Your task to perform on an android device: toggle location history Image 0: 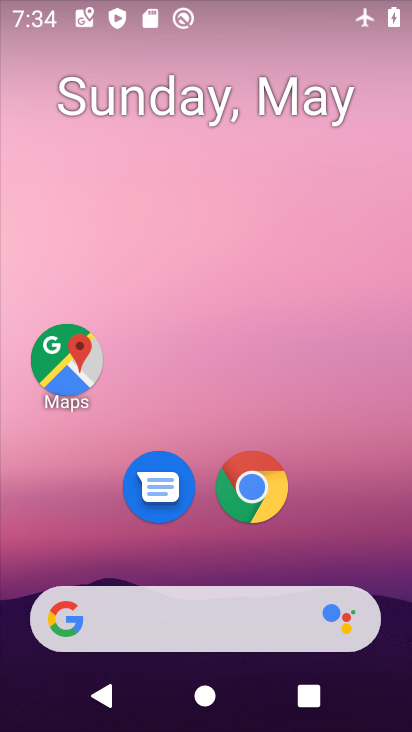
Step 0: drag from (339, 555) to (357, 165)
Your task to perform on an android device: toggle location history Image 1: 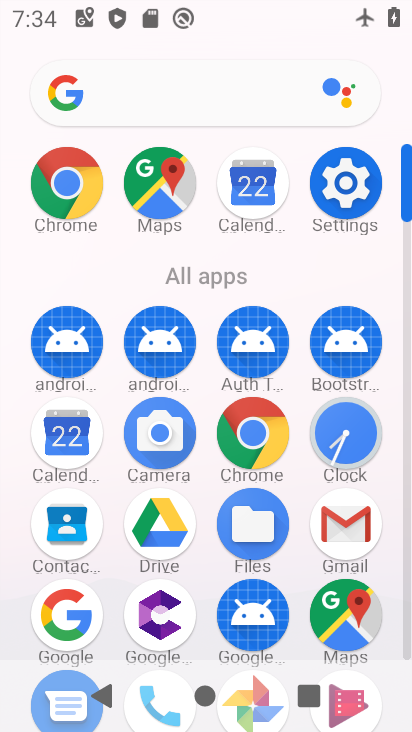
Step 1: click (341, 193)
Your task to perform on an android device: toggle location history Image 2: 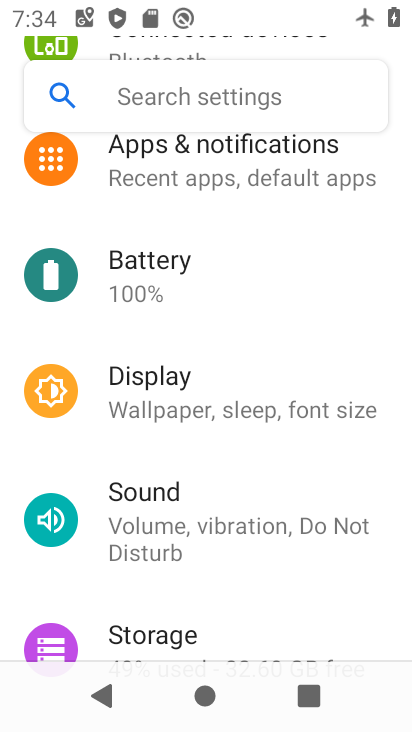
Step 2: drag from (359, 592) to (363, 483)
Your task to perform on an android device: toggle location history Image 3: 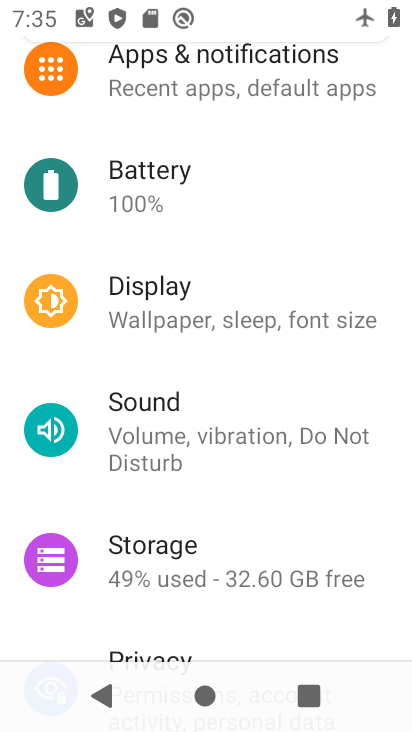
Step 3: drag from (363, 618) to (357, 509)
Your task to perform on an android device: toggle location history Image 4: 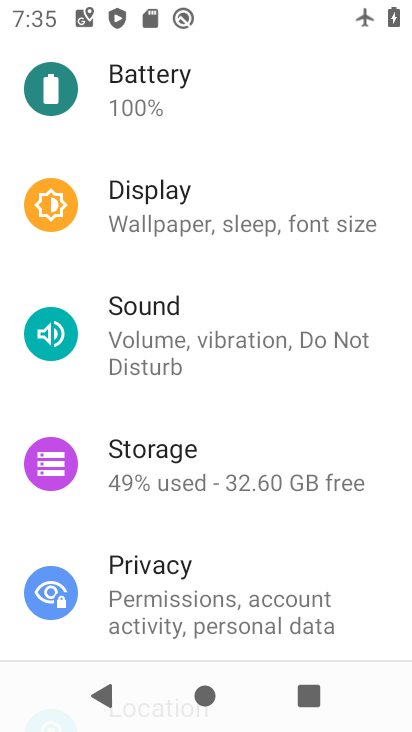
Step 4: drag from (363, 619) to (371, 526)
Your task to perform on an android device: toggle location history Image 5: 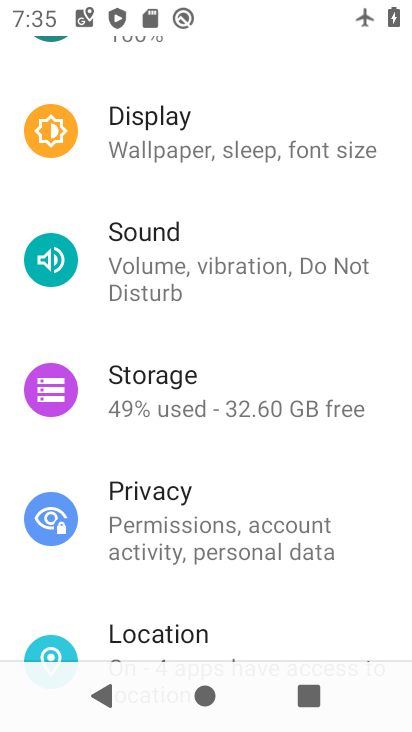
Step 5: drag from (367, 613) to (366, 537)
Your task to perform on an android device: toggle location history Image 6: 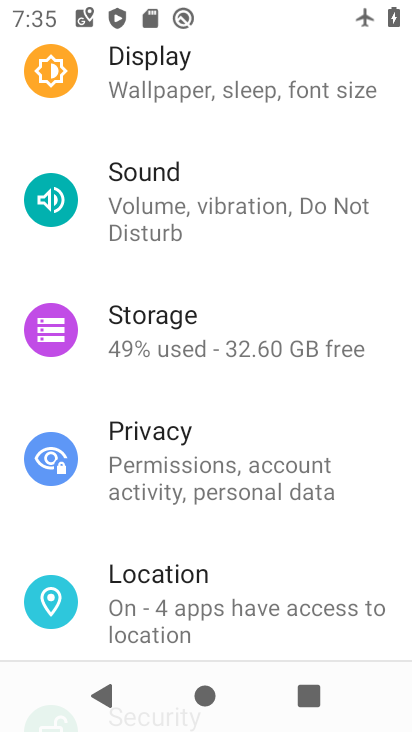
Step 6: drag from (359, 620) to (357, 546)
Your task to perform on an android device: toggle location history Image 7: 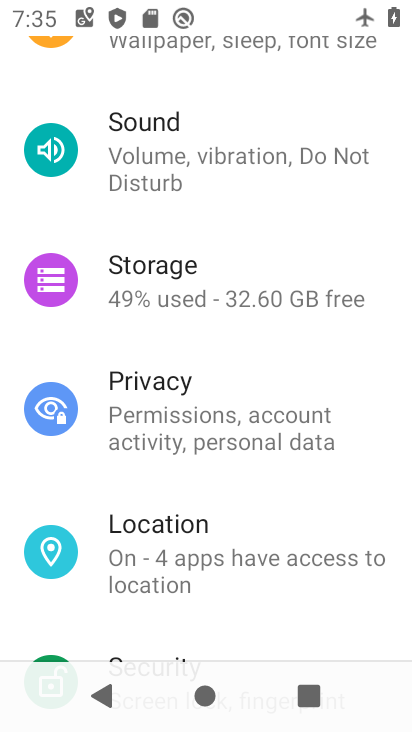
Step 7: drag from (354, 618) to (355, 527)
Your task to perform on an android device: toggle location history Image 8: 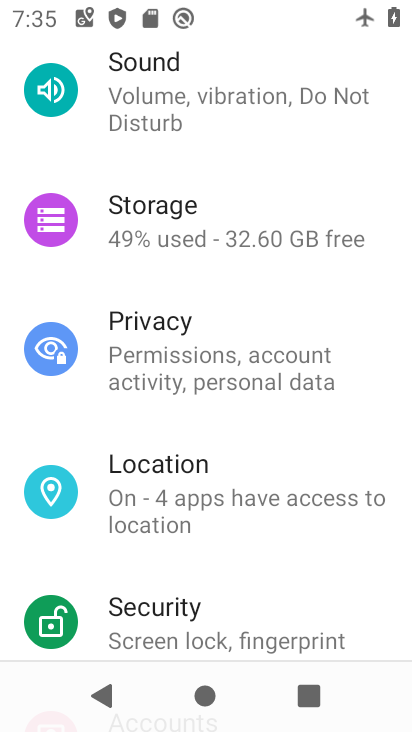
Step 8: drag from (356, 600) to (358, 497)
Your task to perform on an android device: toggle location history Image 9: 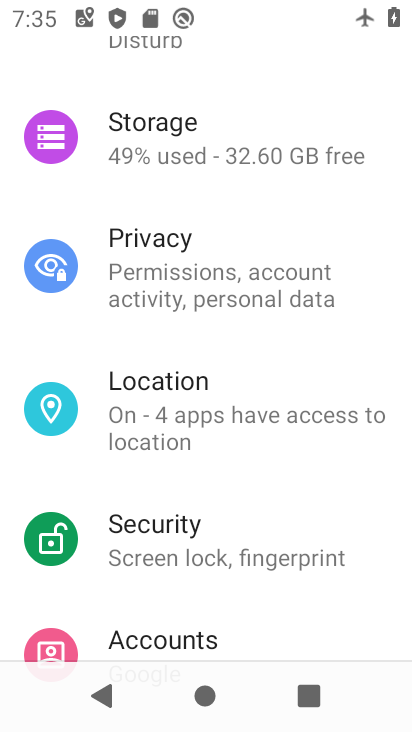
Step 9: drag from (367, 601) to (363, 510)
Your task to perform on an android device: toggle location history Image 10: 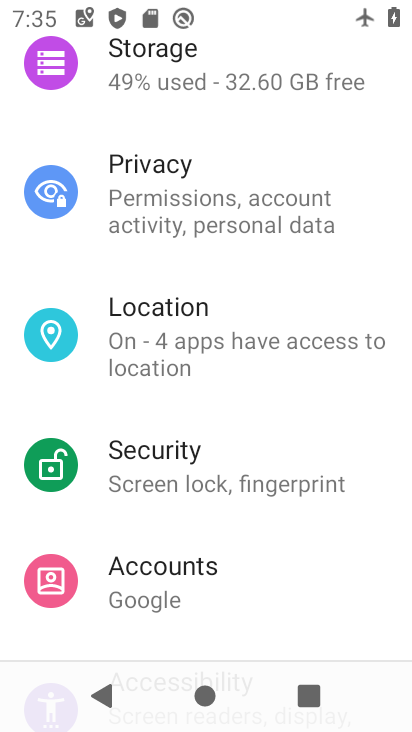
Step 10: drag from (358, 619) to (358, 523)
Your task to perform on an android device: toggle location history Image 11: 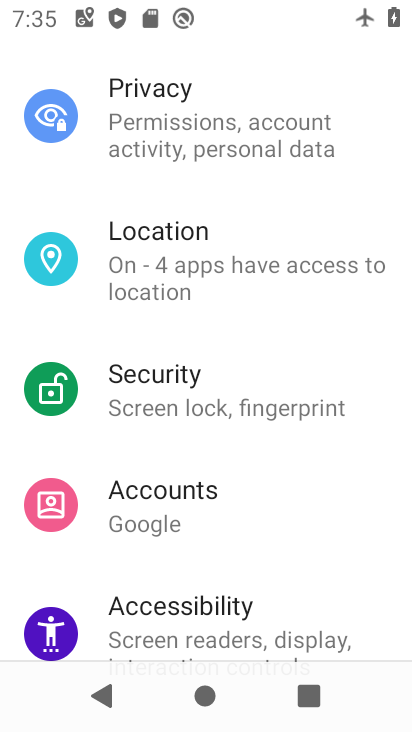
Step 11: drag from (353, 621) to (361, 508)
Your task to perform on an android device: toggle location history Image 12: 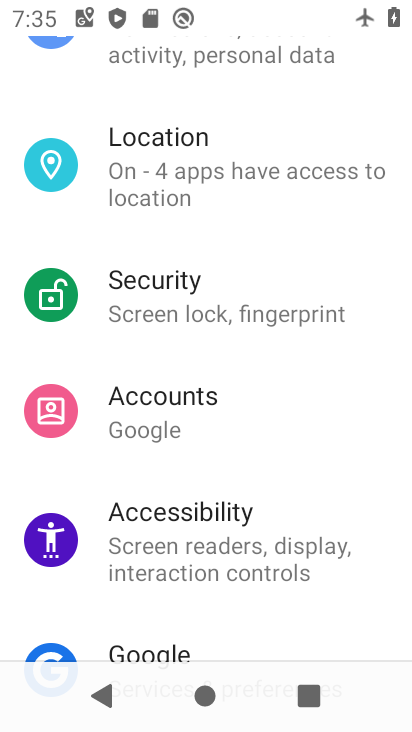
Step 12: drag from (366, 628) to (370, 494)
Your task to perform on an android device: toggle location history Image 13: 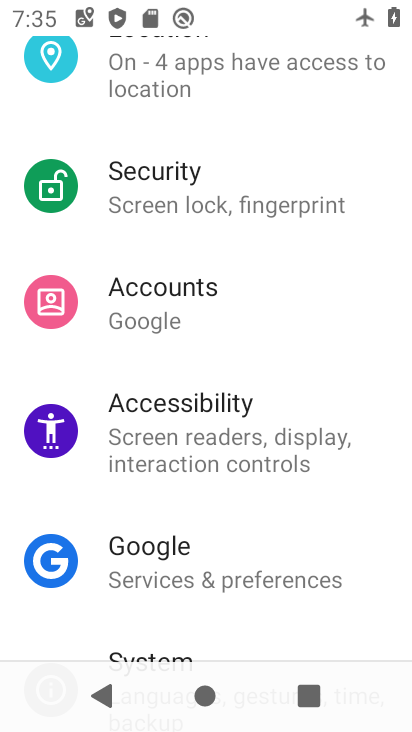
Step 13: drag from (379, 630) to (381, 510)
Your task to perform on an android device: toggle location history Image 14: 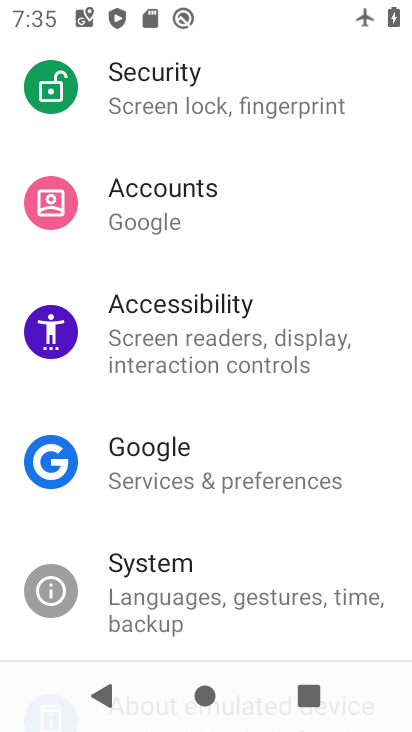
Step 14: drag from (372, 633) to (375, 428)
Your task to perform on an android device: toggle location history Image 15: 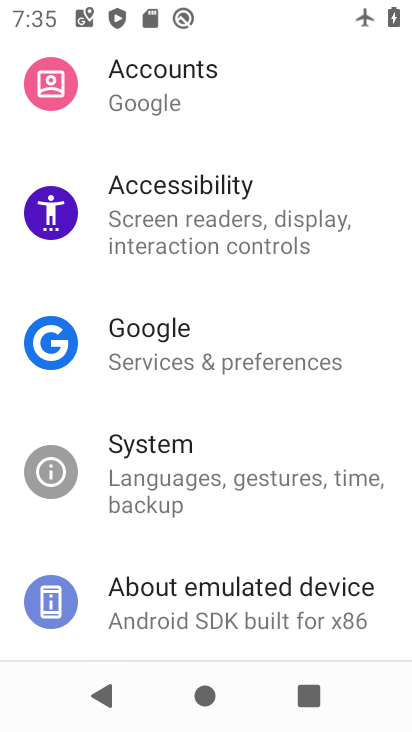
Step 15: drag from (376, 400) to (369, 490)
Your task to perform on an android device: toggle location history Image 16: 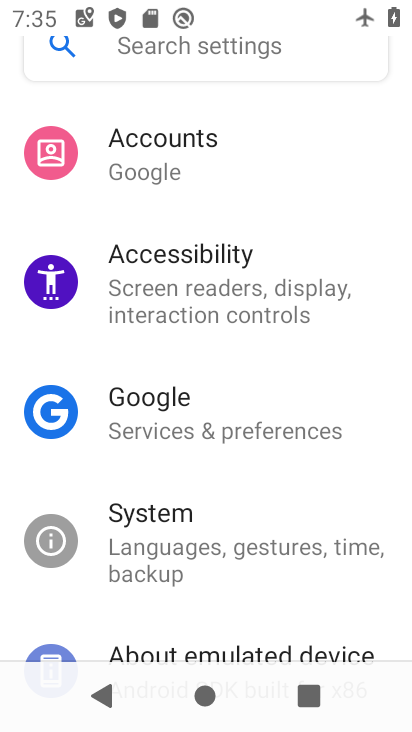
Step 16: drag from (378, 413) to (378, 505)
Your task to perform on an android device: toggle location history Image 17: 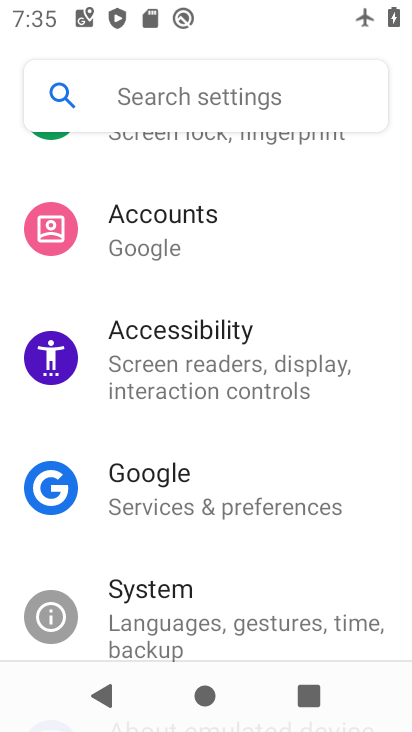
Step 17: drag from (378, 428) to (379, 500)
Your task to perform on an android device: toggle location history Image 18: 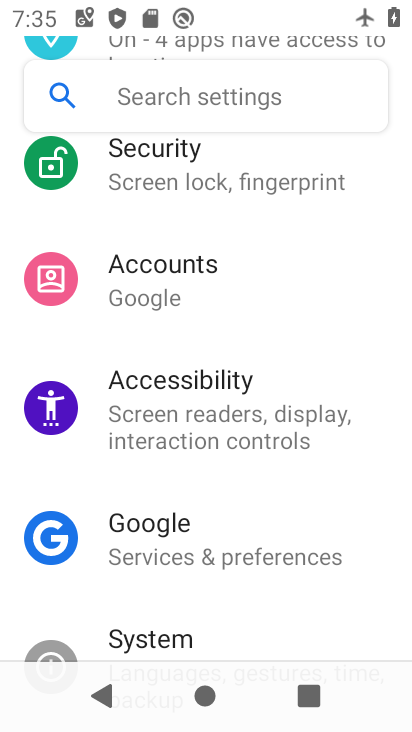
Step 18: drag from (376, 411) to (379, 491)
Your task to perform on an android device: toggle location history Image 19: 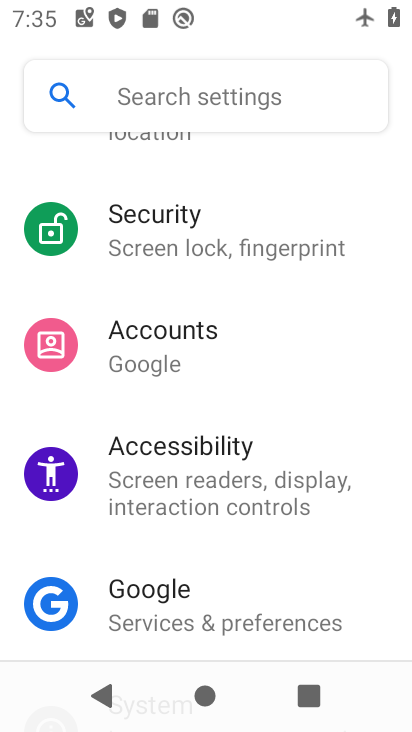
Step 19: drag from (386, 433) to (385, 504)
Your task to perform on an android device: toggle location history Image 20: 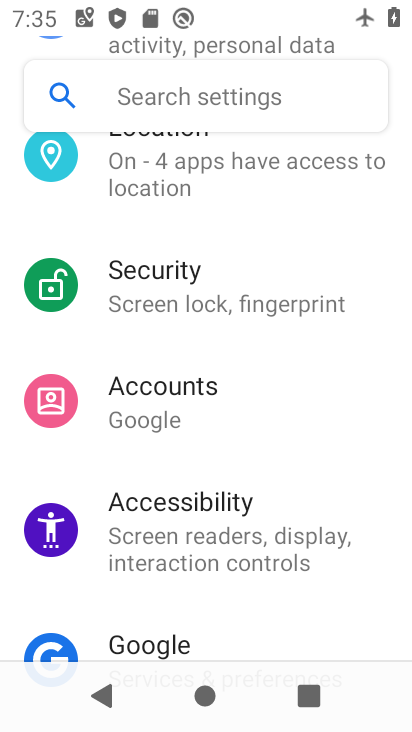
Step 20: drag from (388, 403) to (381, 494)
Your task to perform on an android device: toggle location history Image 21: 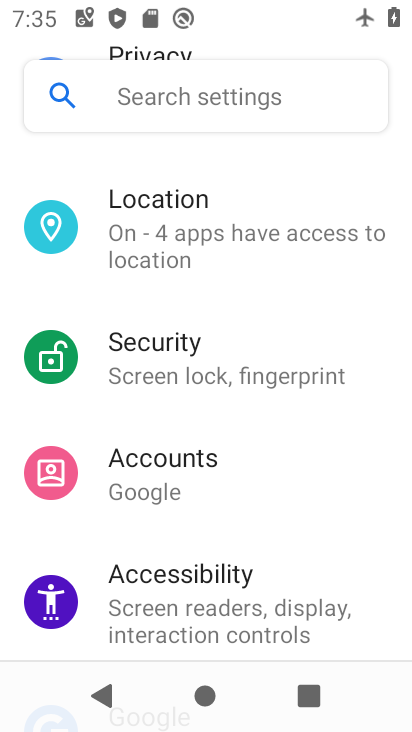
Step 21: drag from (378, 404) to (379, 459)
Your task to perform on an android device: toggle location history Image 22: 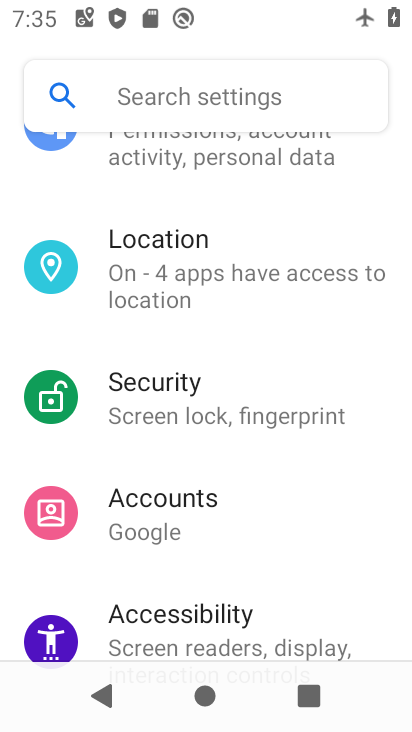
Step 22: drag from (378, 388) to (377, 451)
Your task to perform on an android device: toggle location history Image 23: 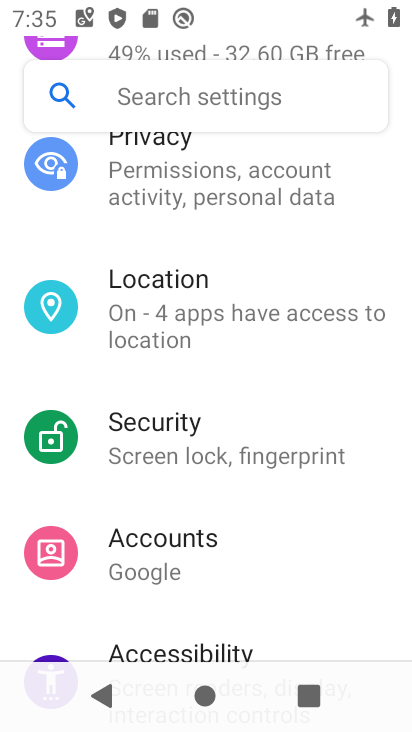
Step 23: drag from (378, 406) to (378, 466)
Your task to perform on an android device: toggle location history Image 24: 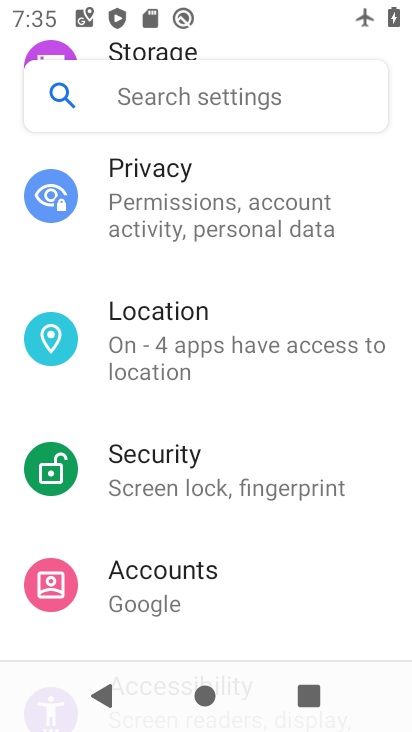
Step 24: drag from (374, 422) to (374, 485)
Your task to perform on an android device: toggle location history Image 25: 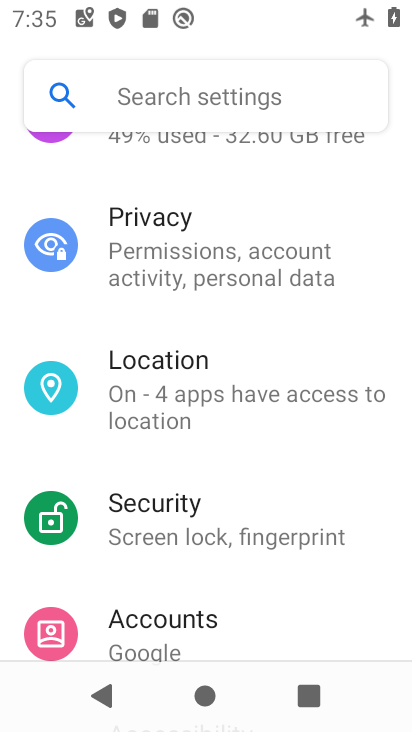
Step 25: drag from (373, 403) to (365, 485)
Your task to perform on an android device: toggle location history Image 26: 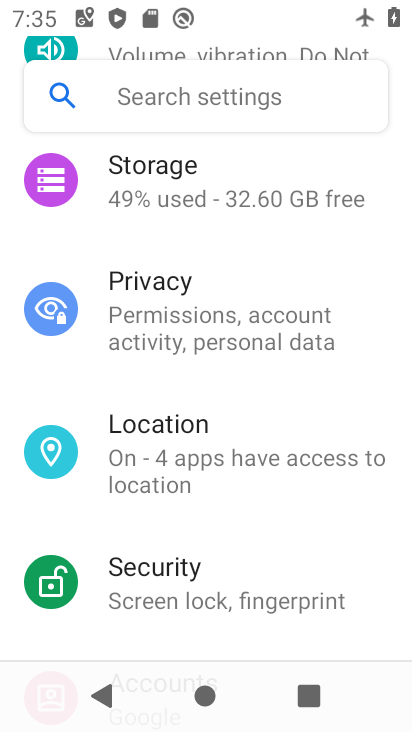
Step 26: drag from (365, 384) to (365, 460)
Your task to perform on an android device: toggle location history Image 27: 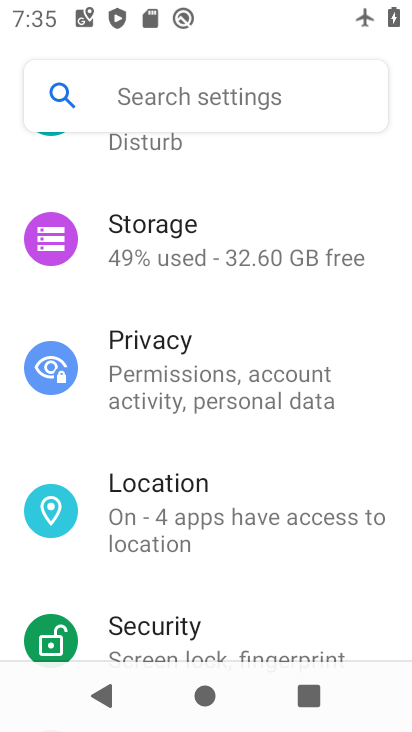
Step 27: click (327, 520)
Your task to perform on an android device: toggle location history Image 28: 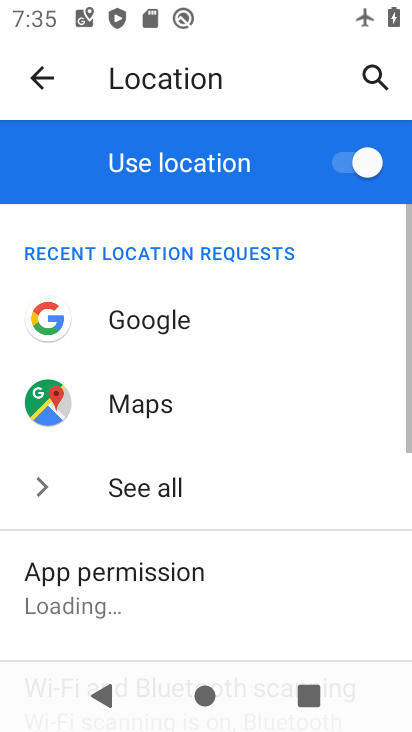
Step 28: drag from (325, 580) to (335, 479)
Your task to perform on an android device: toggle location history Image 29: 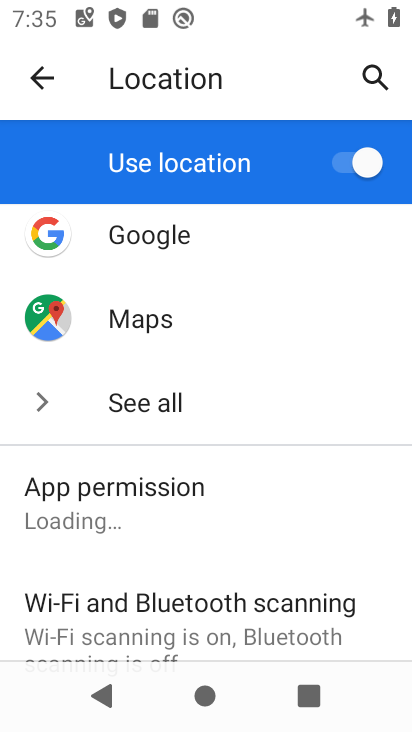
Step 29: drag from (370, 622) to (376, 525)
Your task to perform on an android device: toggle location history Image 30: 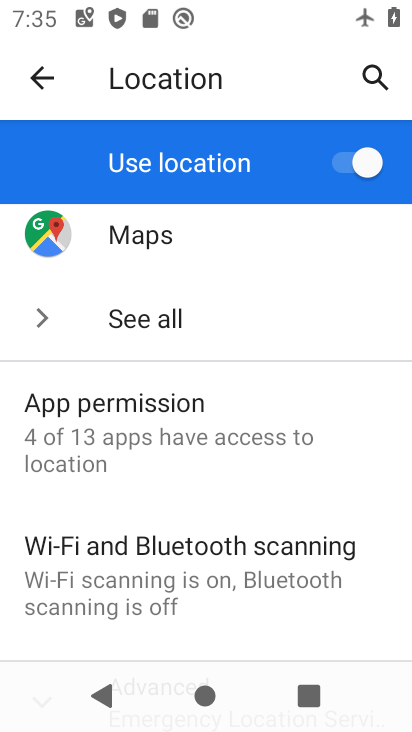
Step 30: drag from (374, 612) to (378, 514)
Your task to perform on an android device: toggle location history Image 31: 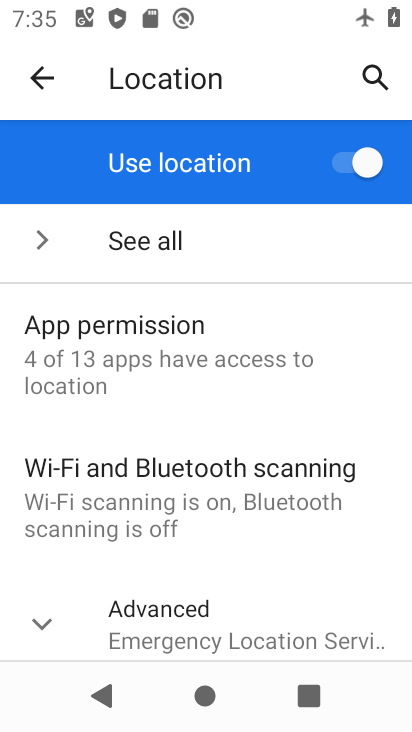
Step 31: drag from (370, 600) to (369, 488)
Your task to perform on an android device: toggle location history Image 32: 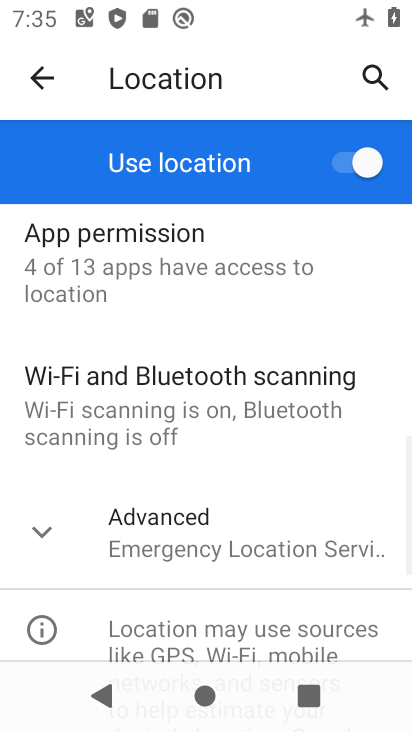
Step 32: click (346, 572)
Your task to perform on an android device: toggle location history Image 33: 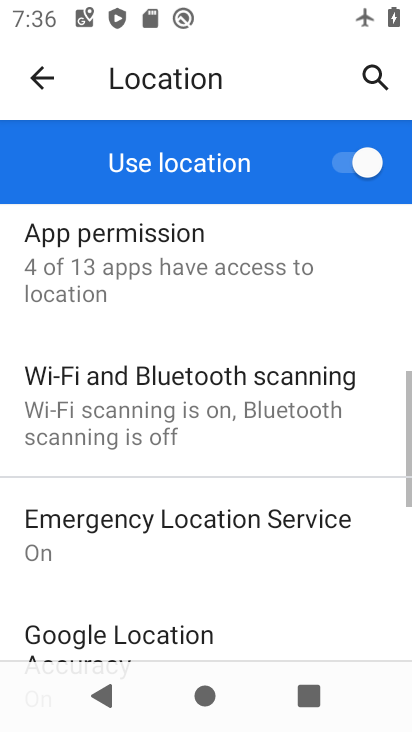
Step 33: drag from (349, 611) to (361, 524)
Your task to perform on an android device: toggle location history Image 34: 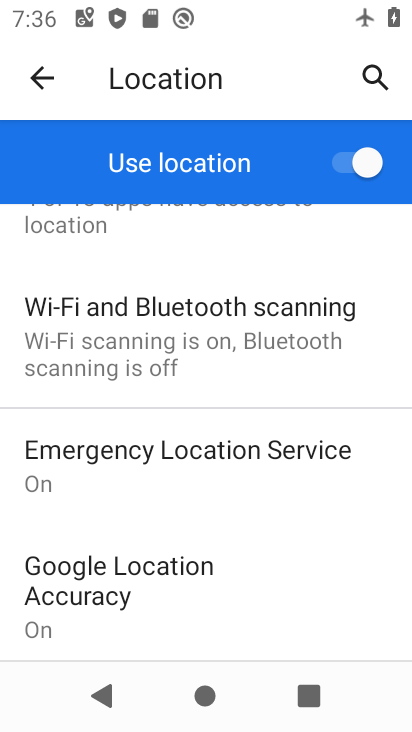
Step 34: drag from (363, 610) to (367, 516)
Your task to perform on an android device: toggle location history Image 35: 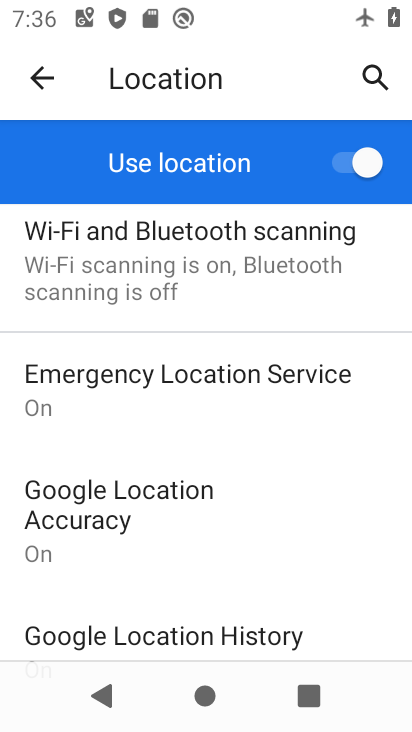
Step 35: drag from (361, 618) to (361, 513)
Your task to perform on an android device: toggle location history Image 36: 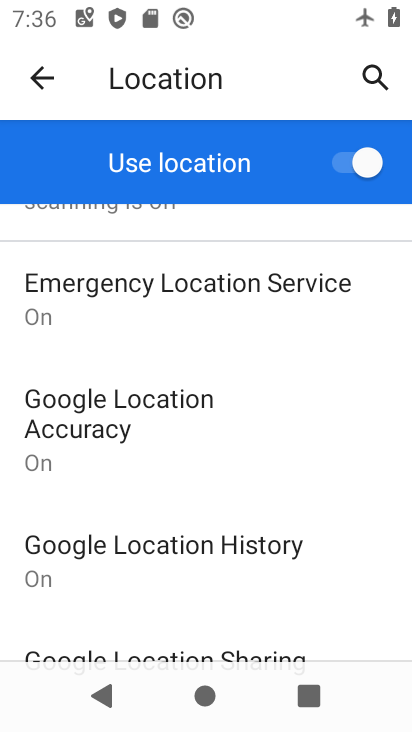
Step 36: click (314, 553)
Your task to perform on an android device: toggle location history Image 37: 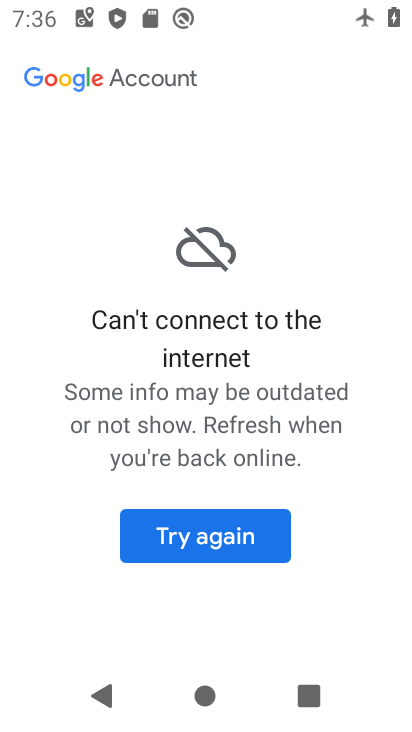
Step 37: task complete